Your task to perform on an android device: turn on sleep mode Image 0: 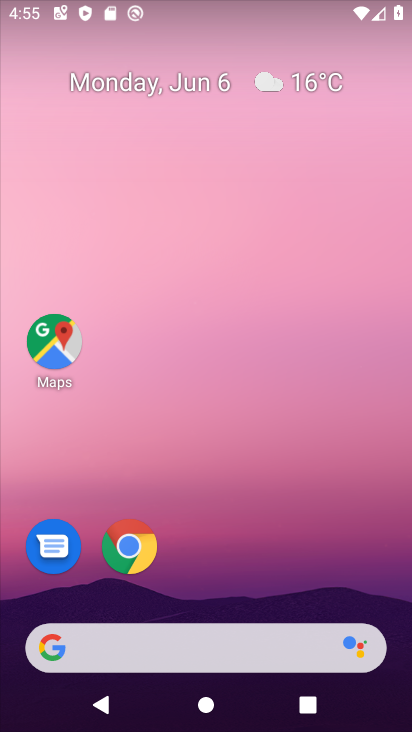
Step 0: drag from (202, 287) to (202, 249)
Your task to perform on an android device: turn on sleep mode Image 1: 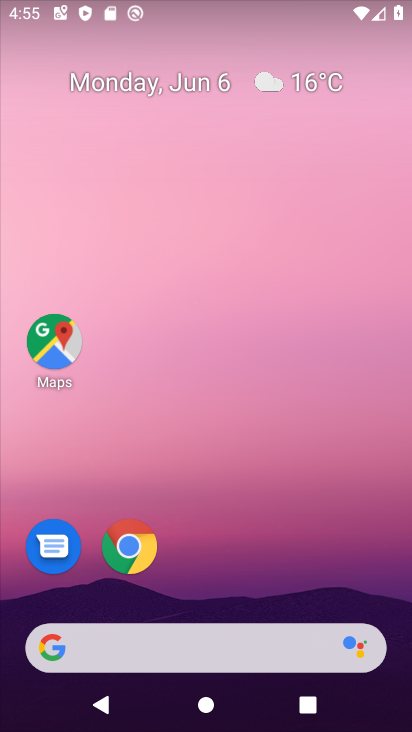
Step 1: drag from (213, 627) to (244, 147)
Your task to perform on an android device: turn on sleep mode Image 2: 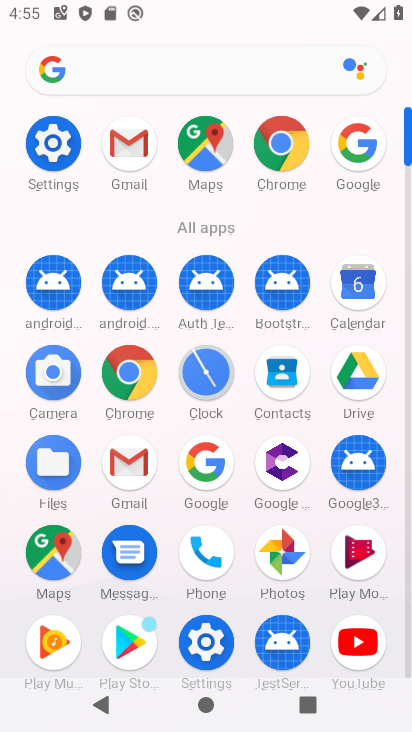
Step 2: click (201, 664)
Your task to perform on an android device: turn on sleep mode Image 3: 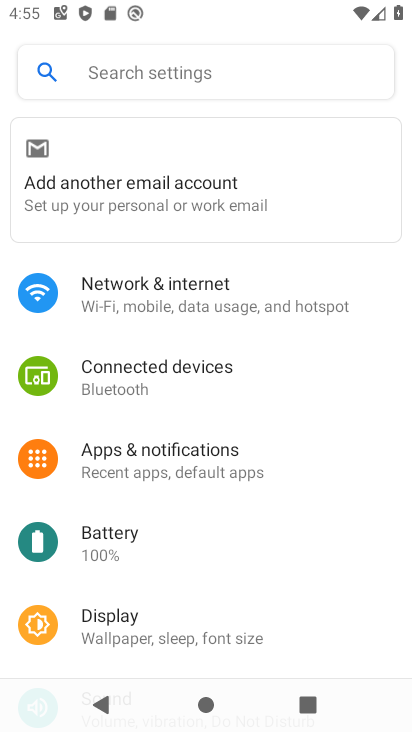
Step 3: click (180, 636)
Your task to perform on an android device: turn on sleep mode Image 4: 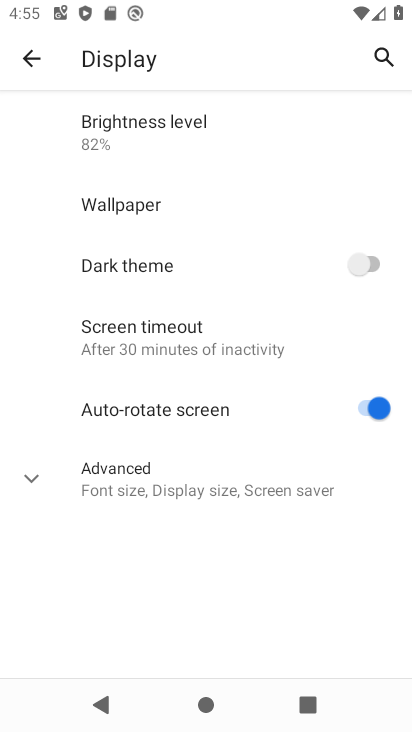
Step 4: click (140, 338)
Your task to perform on an android device: turn on sleep mode Image 5: 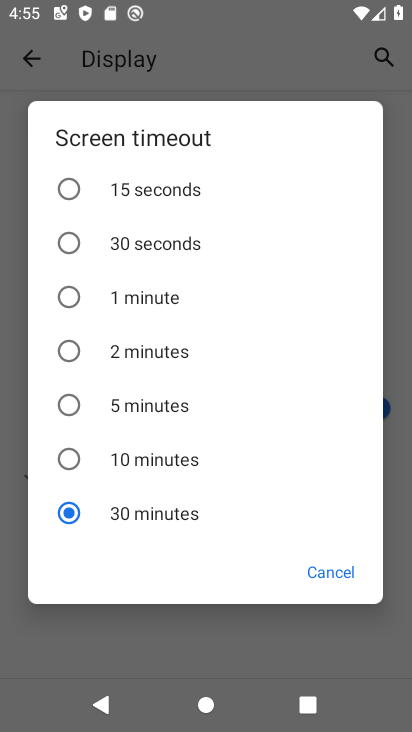
Step 5: click (163, 193)
Your task to perform on an android device: turn on sleep mode Image 6: 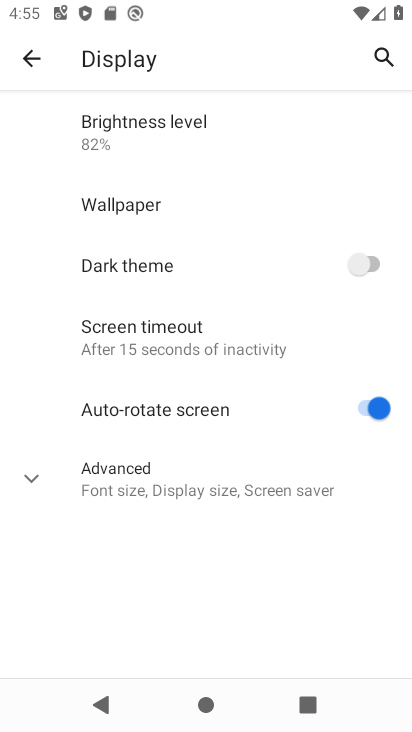
Step 6: task complete